Your task to perform on an android device: set the stopwatch Image 0: 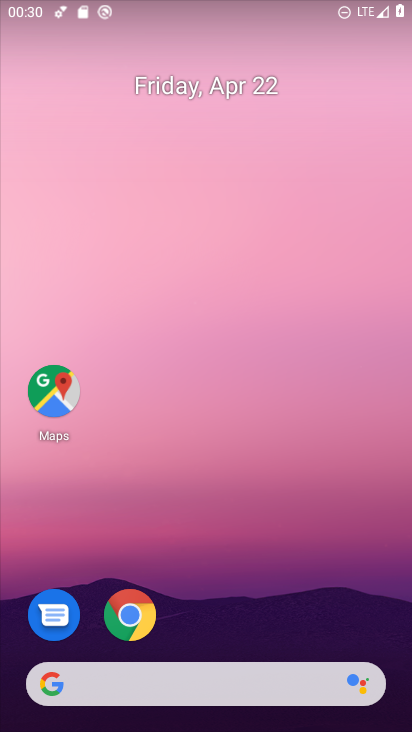
Step 0: drag from (217, 648) to (229, 30)
Your task to perform on an android device: set the stopwatch Image 1: 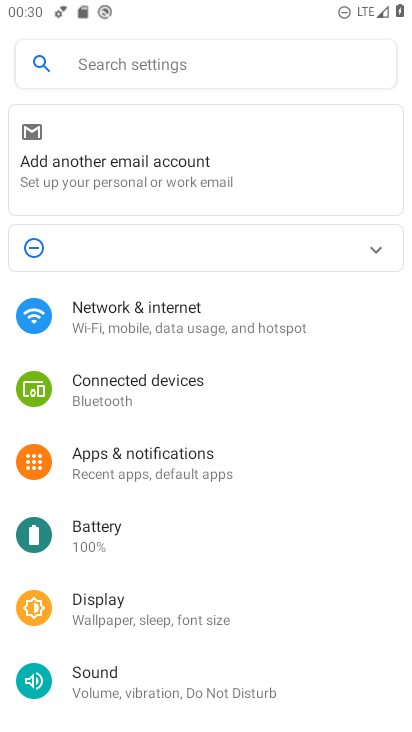
Step 1: press home button
Your task to perform on an android device: set the stopwatch Image 2: 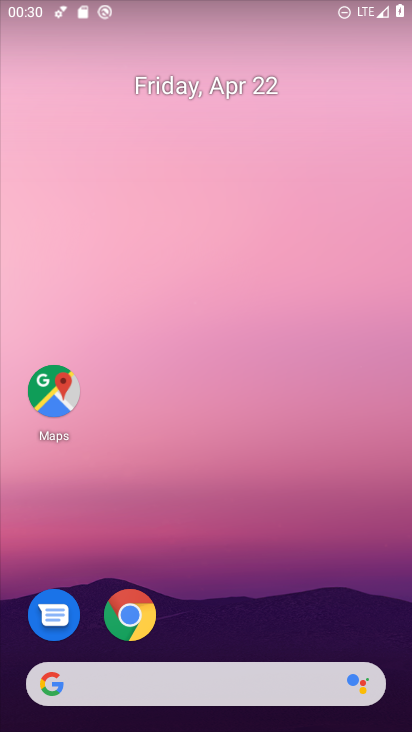
Step 2: drag from (213, 643) to (212, 86)
Your task to perform on an android device: set the stopwatch Image 3: 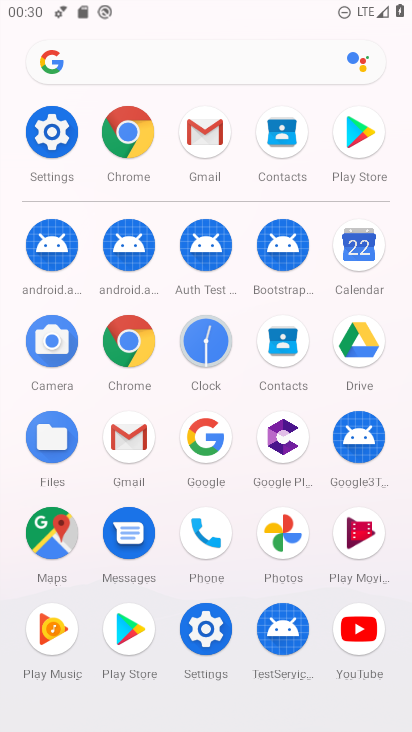
Step 3: click (204, 336)
Your task to perform on an android device: set the stopwatch Image 4: 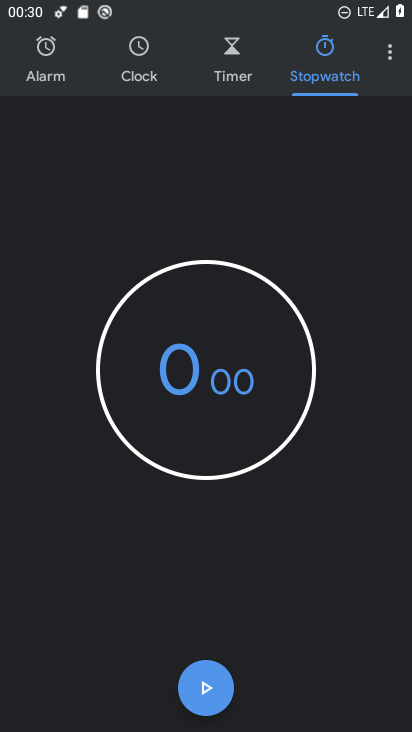
Step 4: click (200, 686)
Your task to perform on an android device: set the stopwatch Image 5: 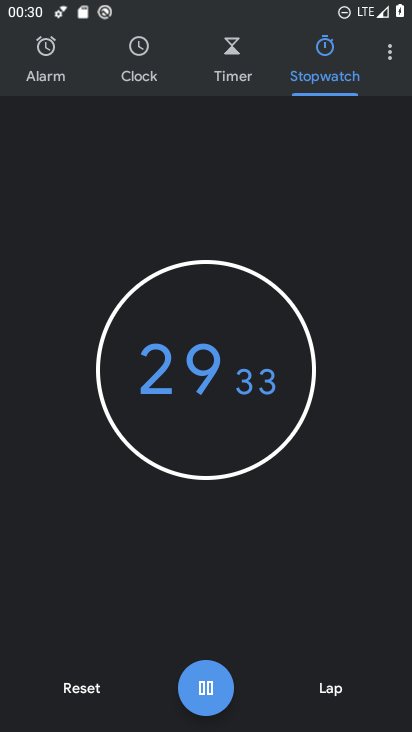
Step 5: task complete